Your task to perform on an android device: Go to ESPN.com Image 0: 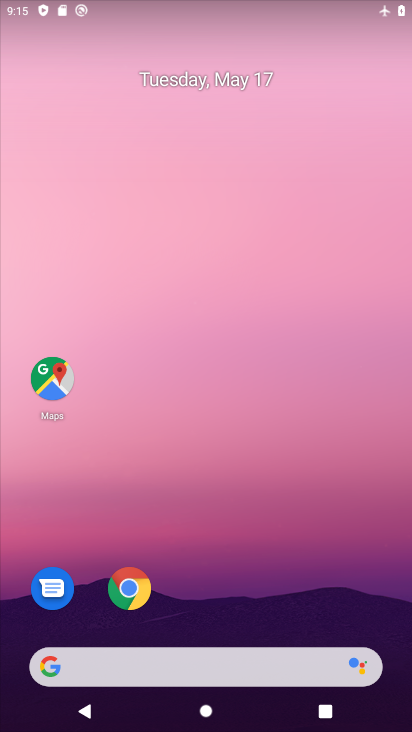
Step 0: click (134, 586)
Your task to perform on an android device: Go to ESPN.com Image 1: 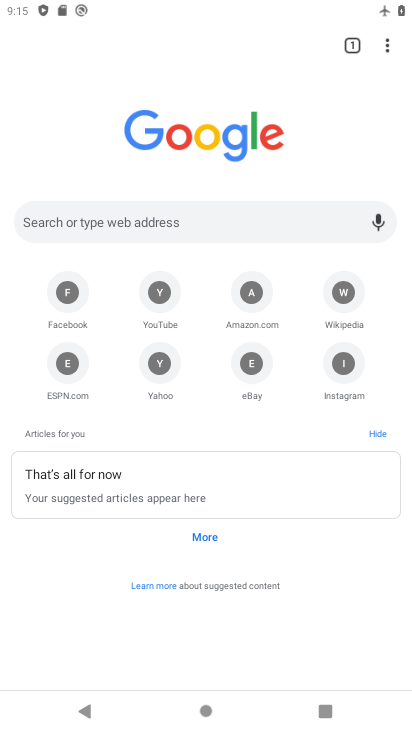
Step 1: click (162, 224)
Your task to perform on an android device: Go to ESPN.com Image 2: 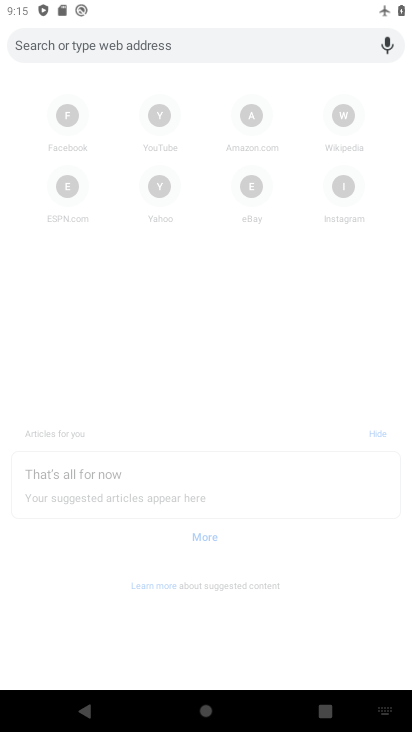
Step 2: type "ESPN.com"
Your task to perform on an android device: Go to ESPN.com Image 3: 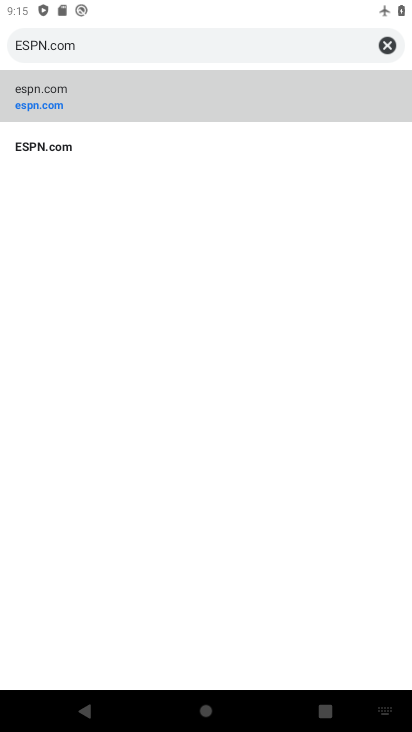
Step 3: click (60, 150)
Your task to perform on an android device: Go to ESPN.com Image 4: 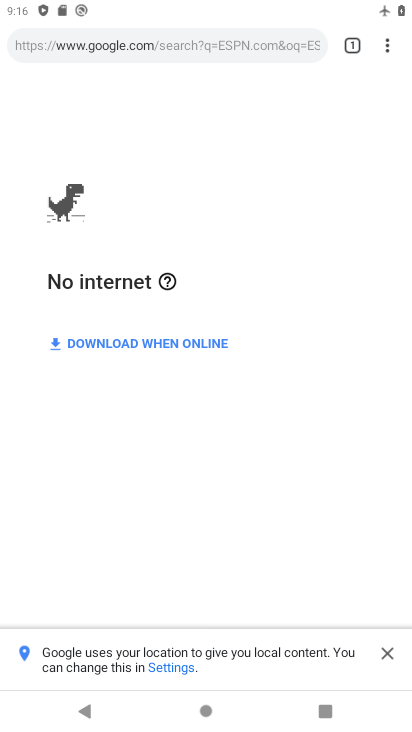
Step 4: task complete